Your task to perform on an android device: search for starred emails in the gmail app Image 0: 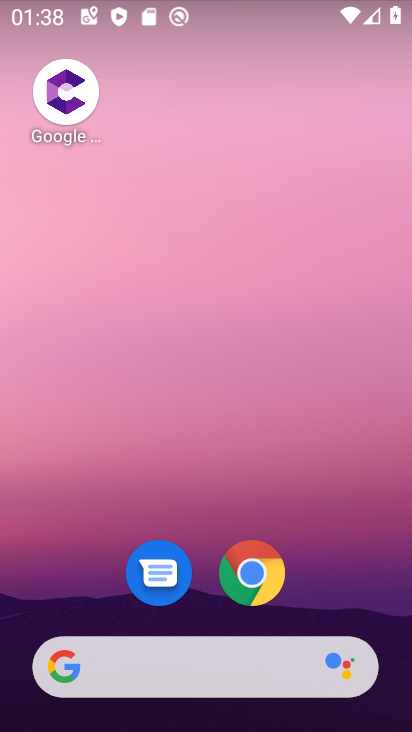
Step 0: drag from (339, 581) to (295, 84)
Your task to perform on an android device: search for starred emails in the gmail app Image 1: 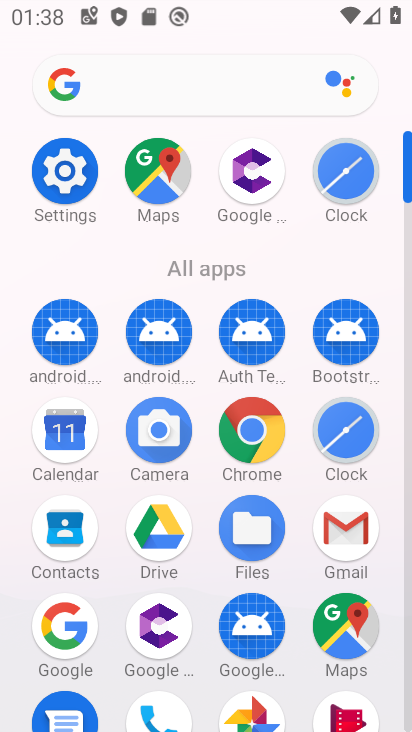
Step 1: click (340, 530)
Your task to perform on an android device: search for starred emails in the gmail app Image 2: 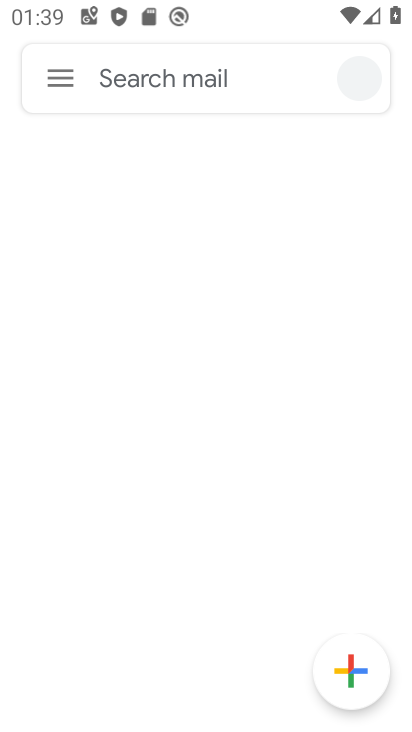
Step 2: click (167, 85)
Your task to perform on an android device: search for starred emails in the gmail app Image 3: 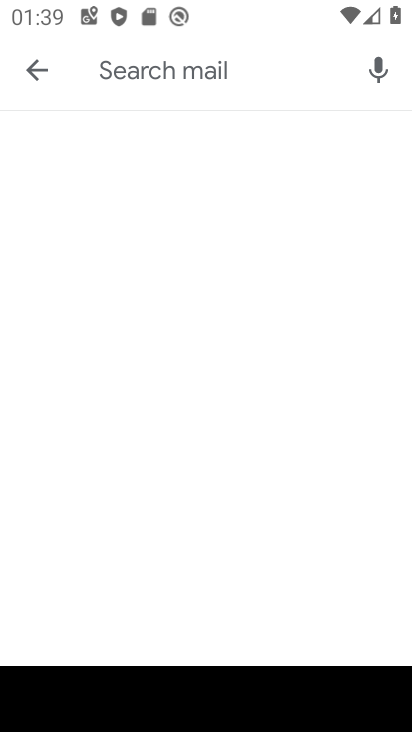
Step 3: type "starred"
Your task to perform on an android device: search for starred emails in the gmail app Image 4: 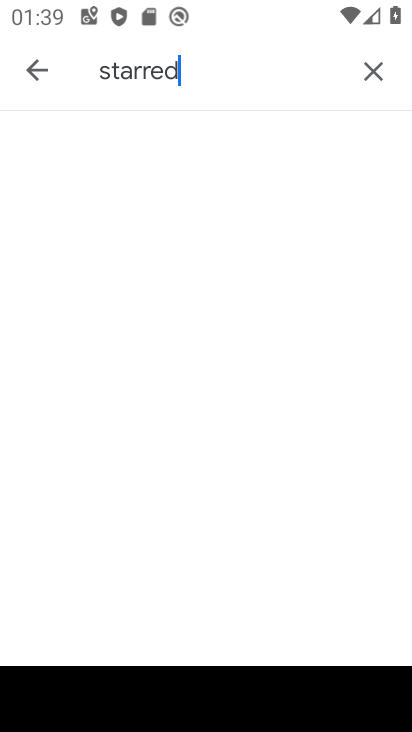
Step 4: type ""
Your task to perform on an android device: search for starred emails in the gmail app Image 5: 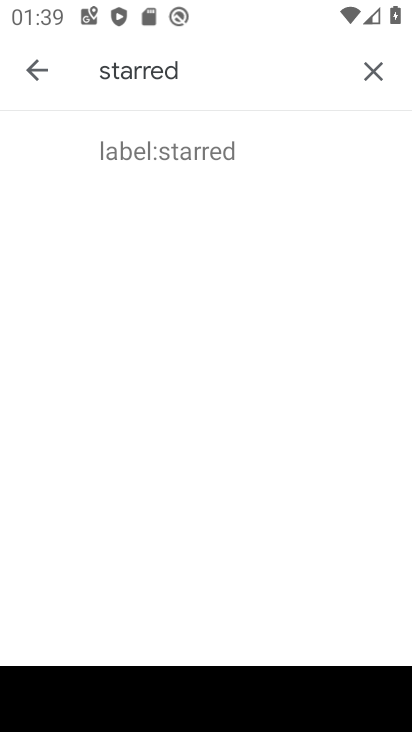
Step 5: click (127, 142)
Your task to perform on an android device: search for starred emails in the gmail app Image 6: 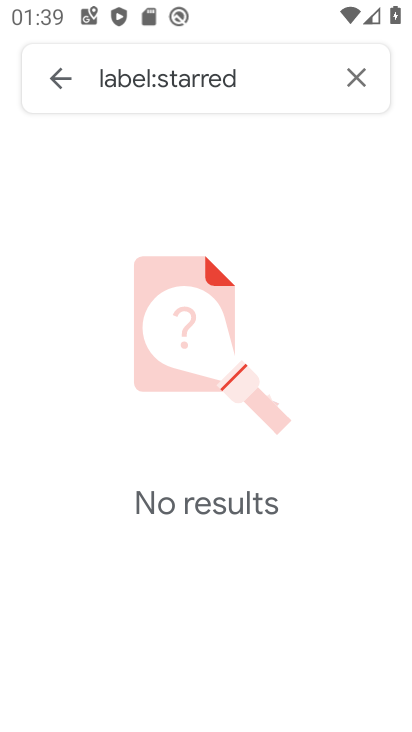
Step 6: click (61, 78)
Your task to perform on an android device: search for starred emails in the gmail app Image 7: 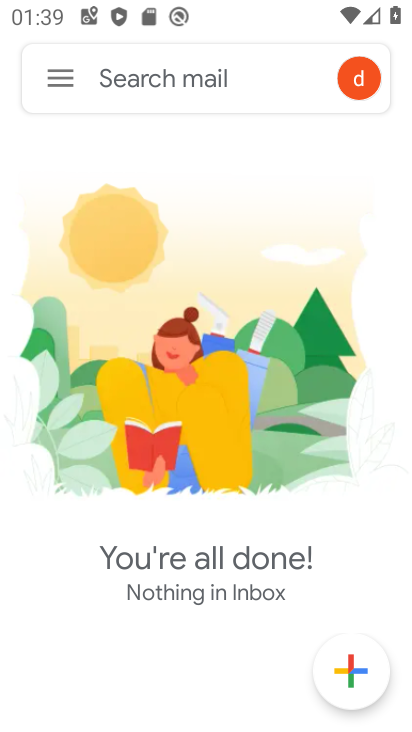
Step 7: click (62, 92)
Your task to perform on an android device: search for starred emails in the gmail app Image 8: 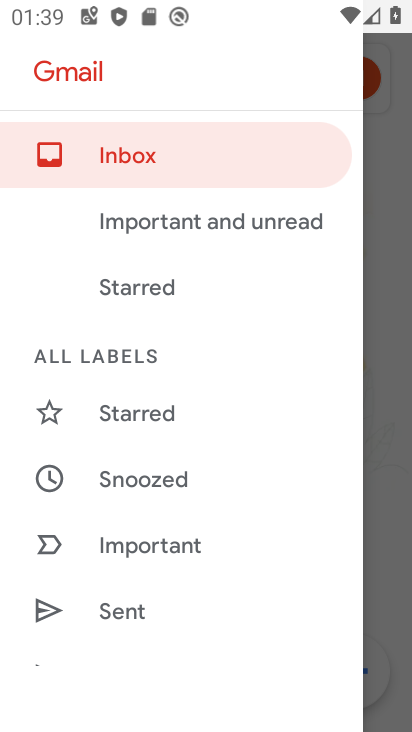
Step 8: click (142, 417)
Your task to perform on an android device: search for starred emails in the gmail app Image 9: 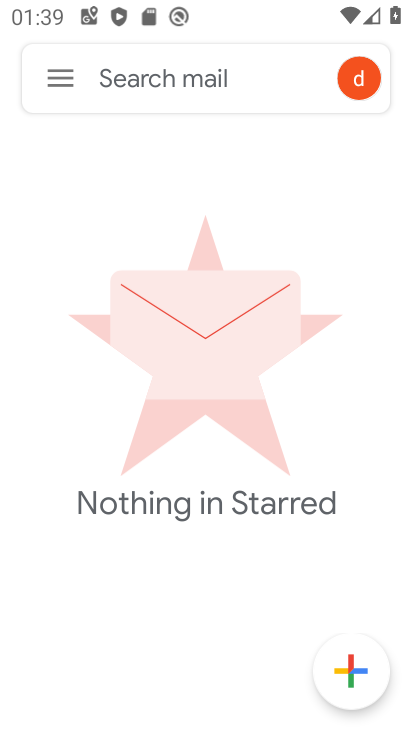
Step 9: task complete